Your task to perform on an android device: Do I have any events tomorrow? Image 0: 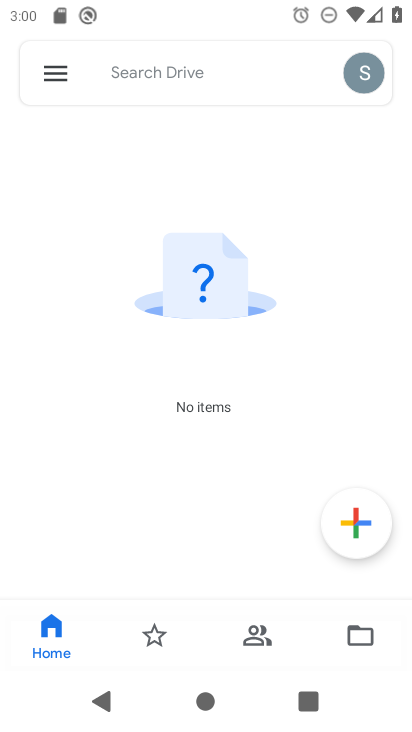
Step 0: press home button
Your task to perform on an android device: Do I have any events tomorrow? Image 1: 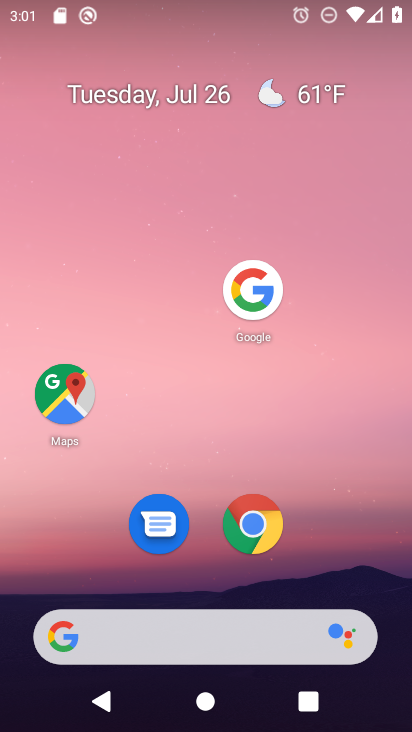
Step 1: drag from (191, 627) to (284, 258)
Your task to perform on an android device: Do I have any events tomorrow? Image 2: 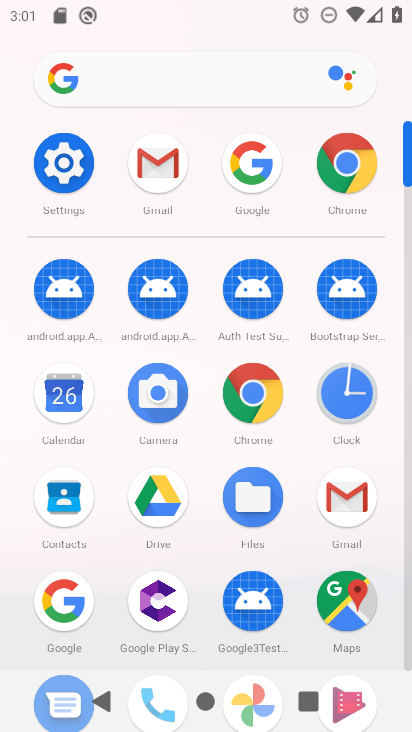
Step 2: click (70, 384)
Your task to perform on an android device: Do I have any events tomorrow? Image 3: 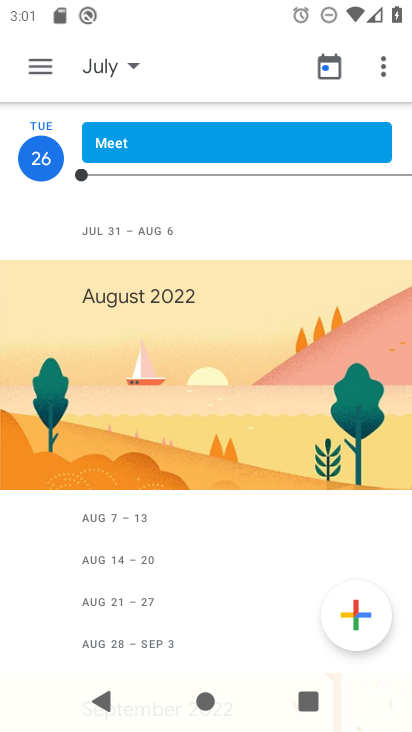
Step 3: click (105, 70)
Your task to perform on an android device: Do I have any events tomorrow? Image 4: 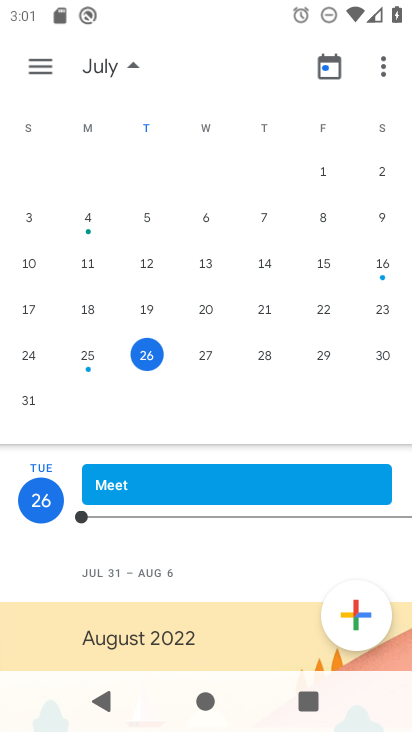
Step 4: click (203, 354)
Your task to perform on an android device: Do I have any events tomorrow? Image 5: 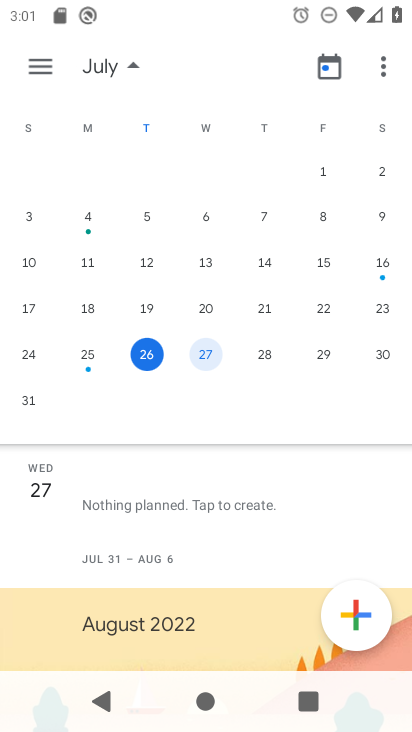
Step 5: click (51, 74)
Your task to perform on an android device: Do I have any events tomorrow? Image 6: 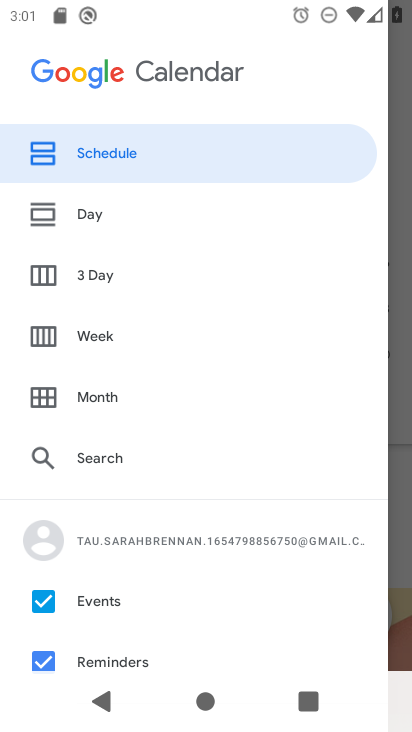
Step 6: click (85, 213)
Your task to perform on an android device: Do I have any events tomorrow? Image 7: 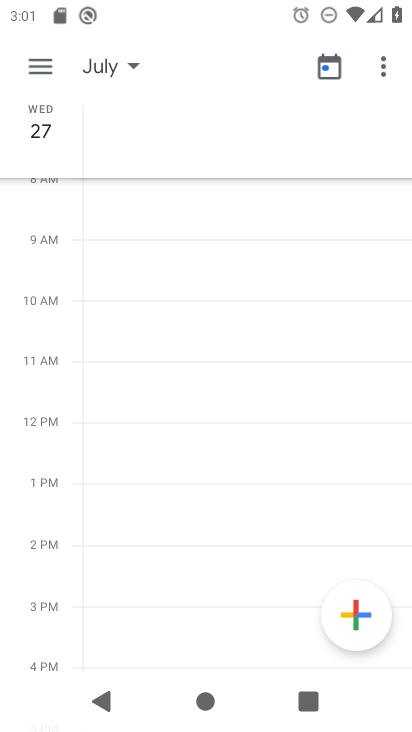
Step 7: click (46, 64)
Your task to perform on an android device: Do I have any events tomorrow? Image 8: 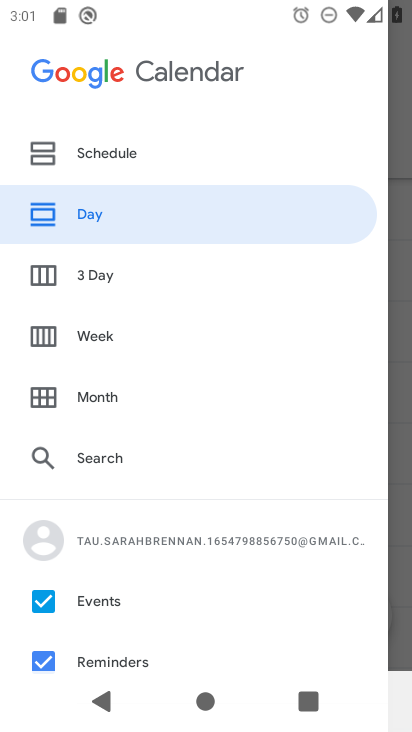
Step 8: click (109, 147)
Your task to perform on an android device: Do I have any events tomorrow? Image 9: 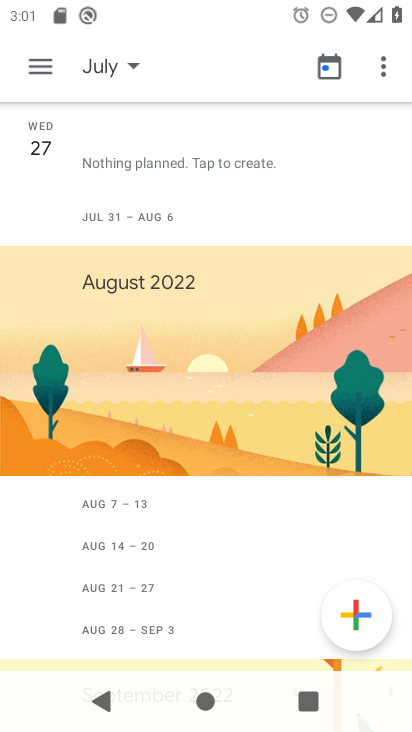
Step 9: task complete